Your task to perform on an android device: delete location history Image 0: 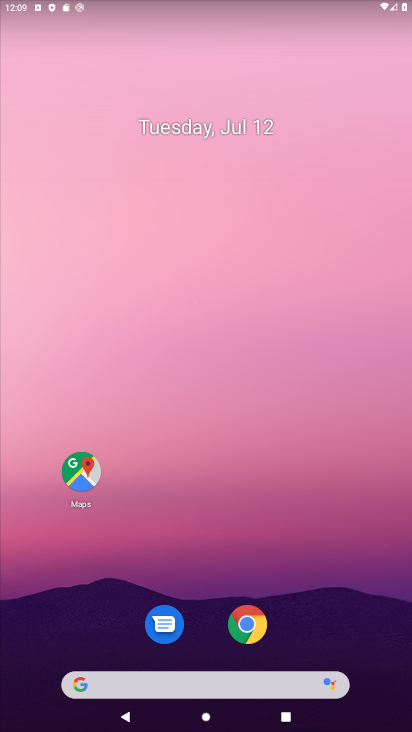
Step 0: drag from (203, 639) to (212, 324)
Your task to perform on an android device: delete location history Image 1: 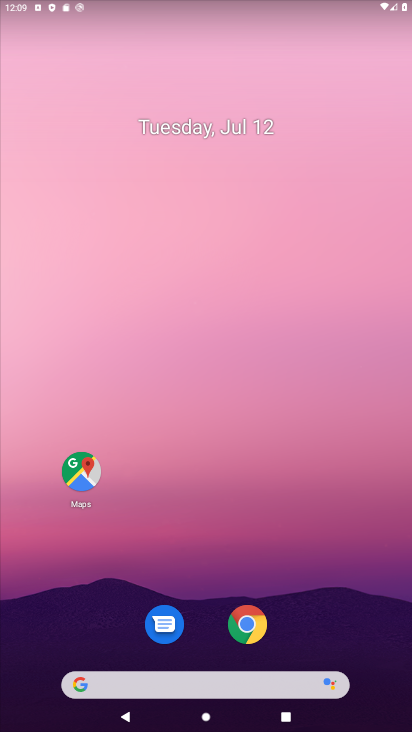
Step 1: drag from (194, 652) to (198, 205)
Your task to perform on an android device: delete location history Image 2: 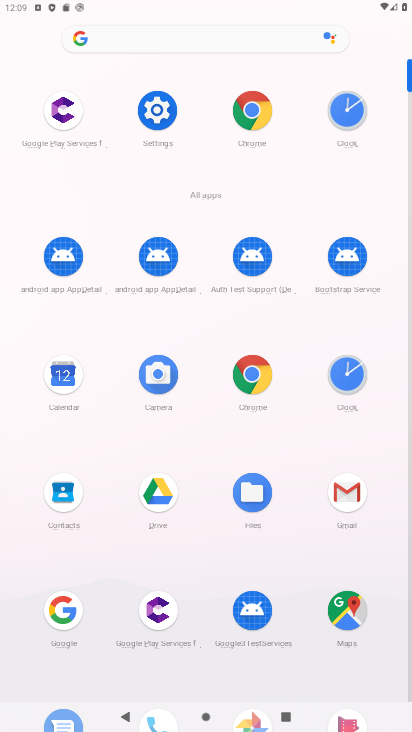
Step 2: click (353, 627)
Your task to perform on an android device: delete location history Image 3: 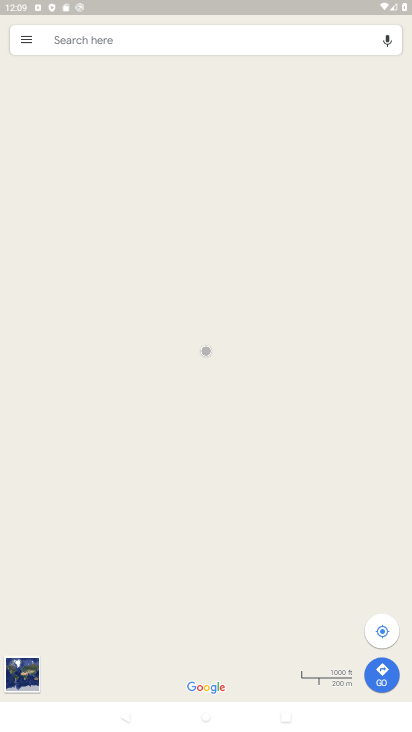
Step 3: click (26, 43)
Your task to perform on an android device: delete location history Image 4: 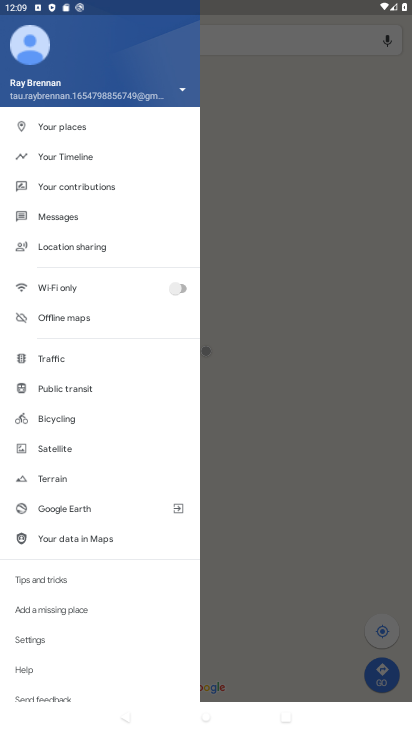
Step 4: click (85, 162)
Your task to perform on an android device: delete location history Image 5: 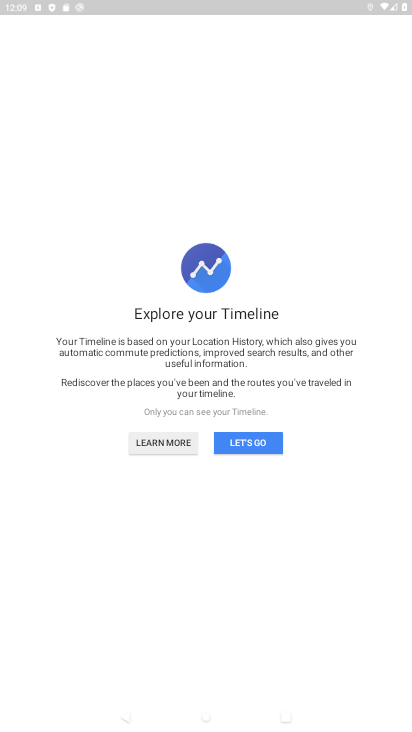
Step 5: click (255, 442)
Your task to perform on an android device: delete location history Image 6: 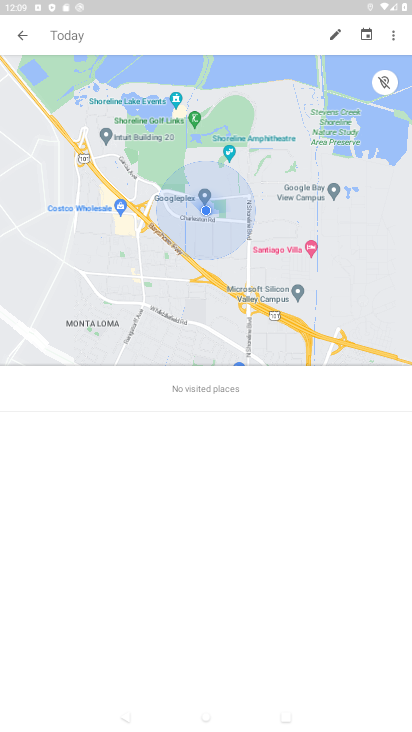
Step 6: click (396, 34)
Your task to perform on an android device: delete location history Image 7: 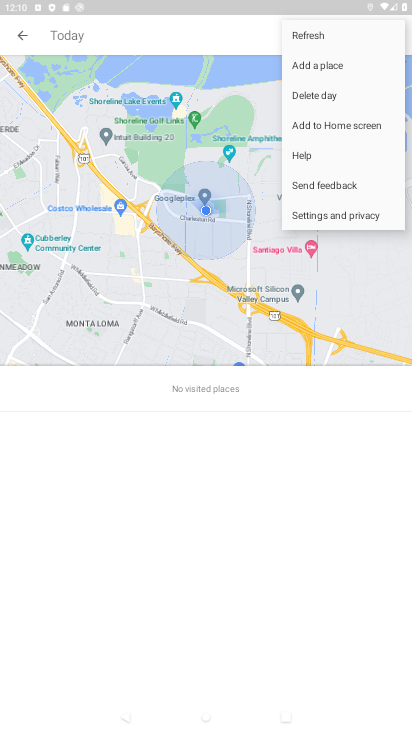
Step 7: click (319, 216)
Your task to perform on an android device: delete location history Image 8: 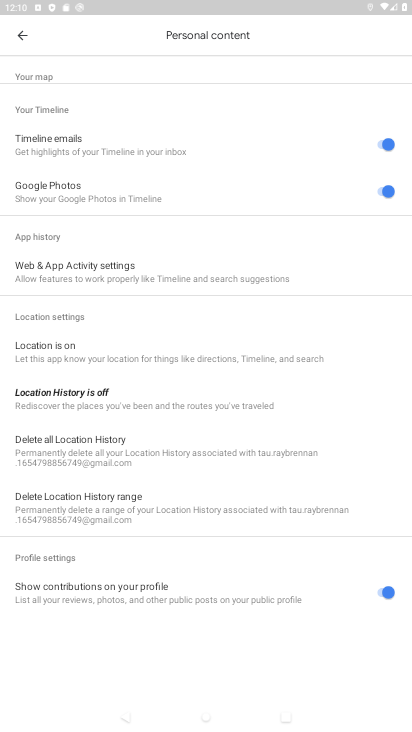
Step 8: click (137, 452)
Your task to perform on an android device: delete location history Image 9: 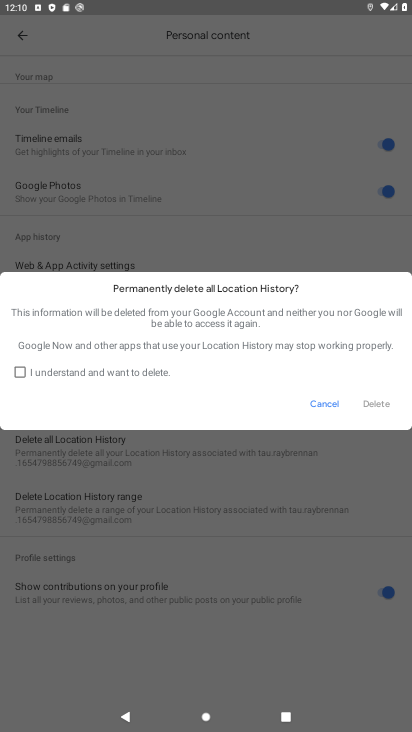
Step 9: click (367, 403)
Your task to perform on an android device: delete location history Image 10: 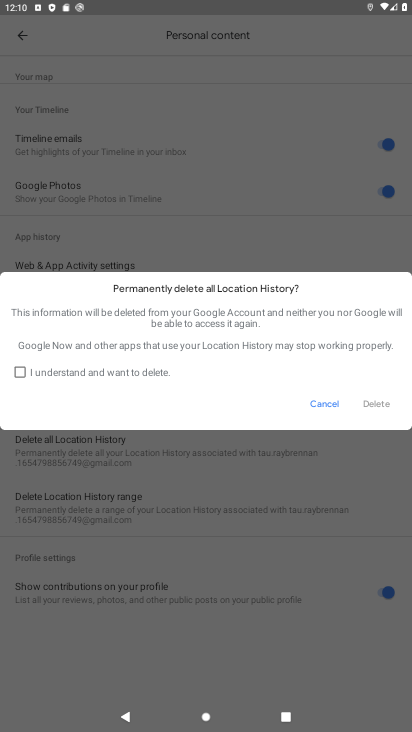
Step 10: click (22, 371)
Your task to perform on an android device: delete location history Image 11: 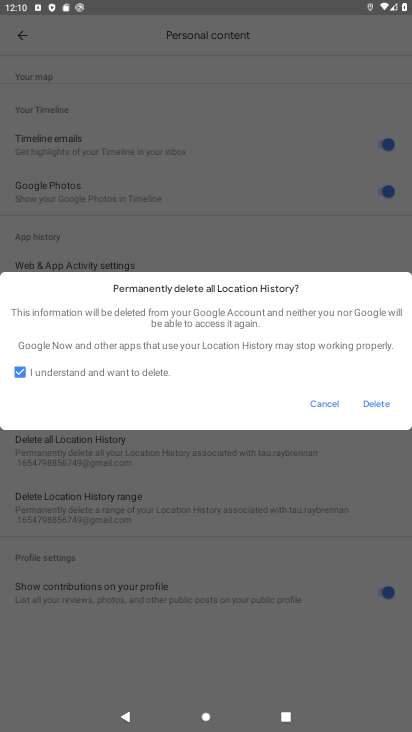
Step 11: click (381, 402)
Your task to perform on an android device: delete location history Image 12: 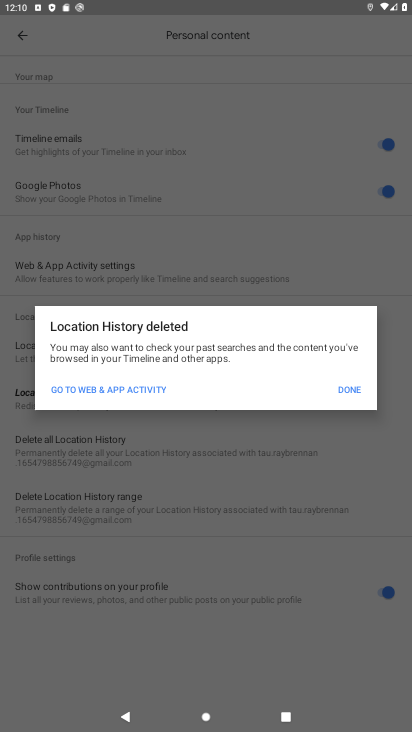
Step 12: click (340, 390)
Your task to perform on an android device: delete location history Image 13: 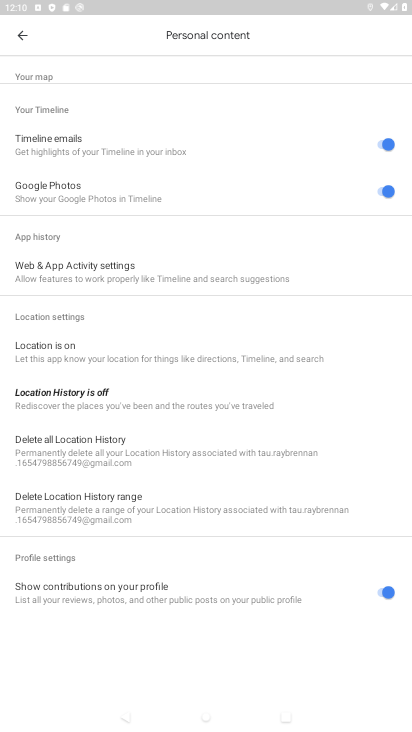
Step 13: task complete